Your task to perform on an android device: Search for seafood restaurants on Google Maps Image 0: 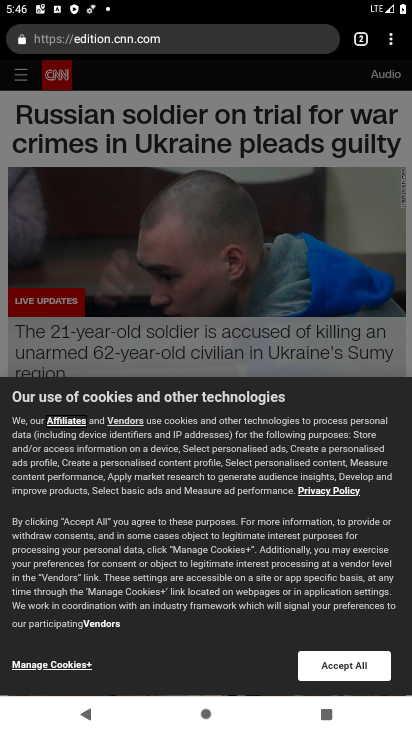
Step 0: press home button
Your task to perform on an android device: Search for seafood restaurants on Google Maps Image 1: 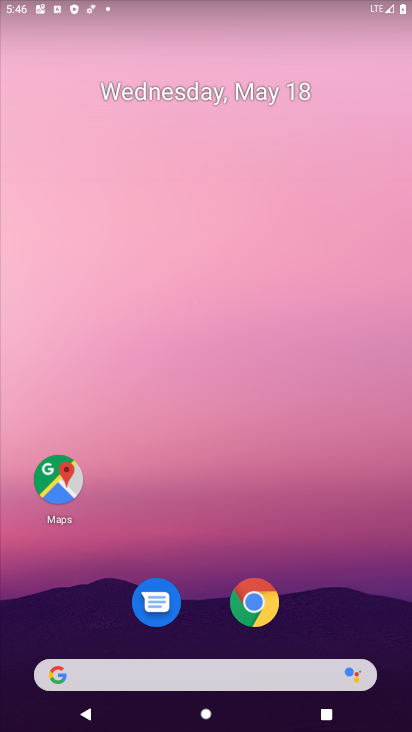
Step 1: drag from (287, 611) to (224, 8)
Your task to perform on an android device: Search for seafood restaurants on Google Maps Image 2: 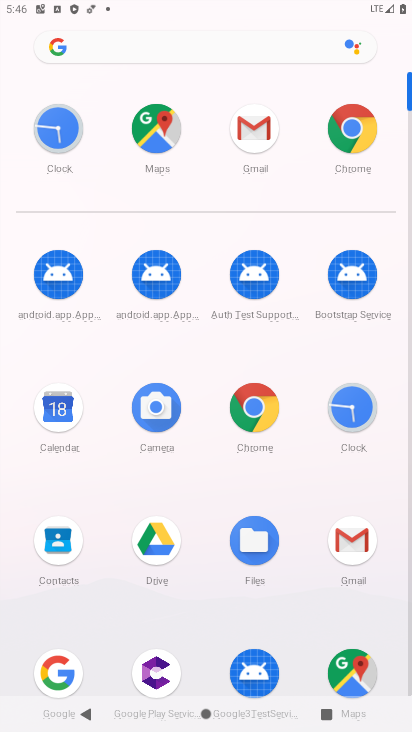
Step 2: click (340, 669)
Your task to perform on an android device: Search for seafood restaurants on Google Maps Image 3: 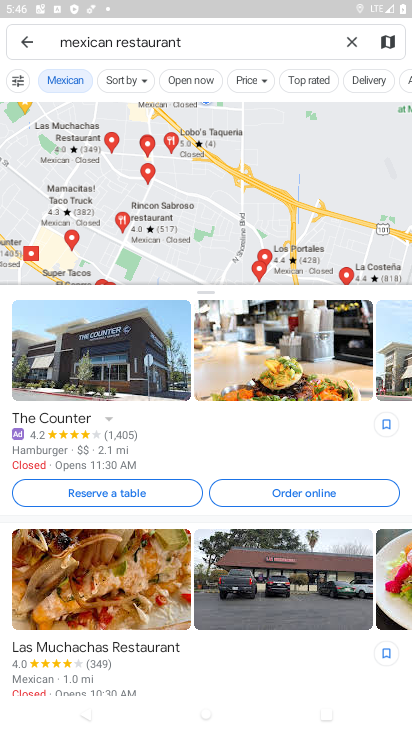
Step 3: click (349, 42)
Your task to perform on an android device: Search for seafood restaurants on Google Maps Image 4: 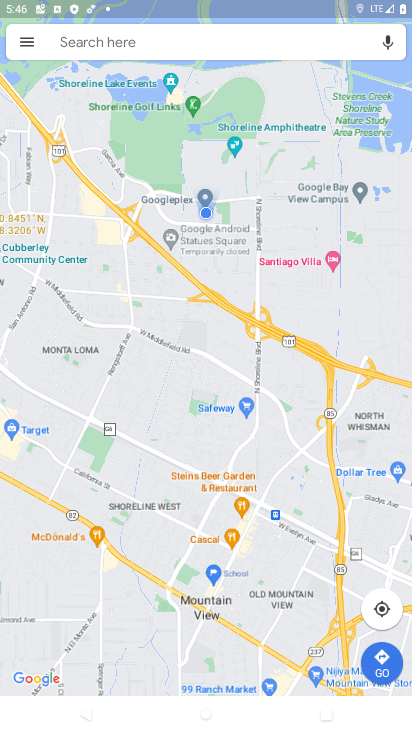
Step 4: click (130, 40)
Your task to perform on an android device: Search for seafood restaurants on Google Maps Image 5: 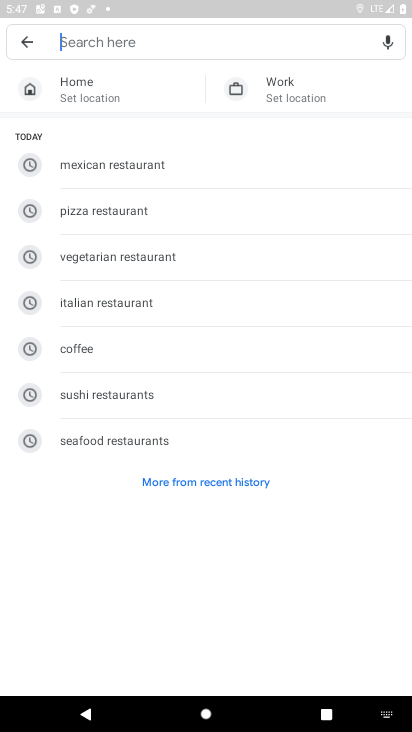
Step 5: click (174, 439)
Your task to perform on an android device: Search for seafood restaurants on Google Maps Image 6: 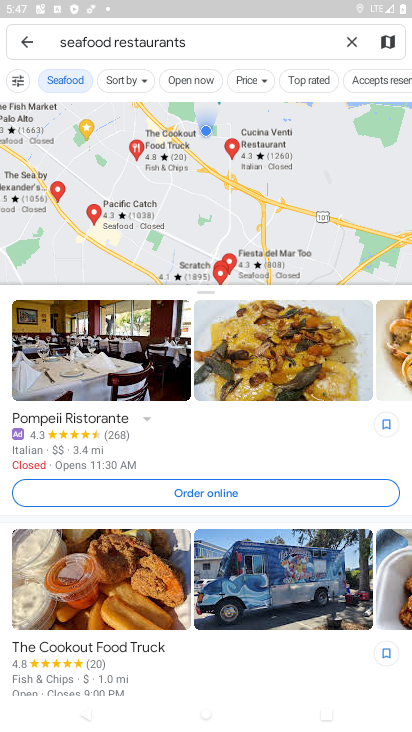
Step 6: task complete